Your task to perform on an android device: turn on bluetooth scan Image 0: 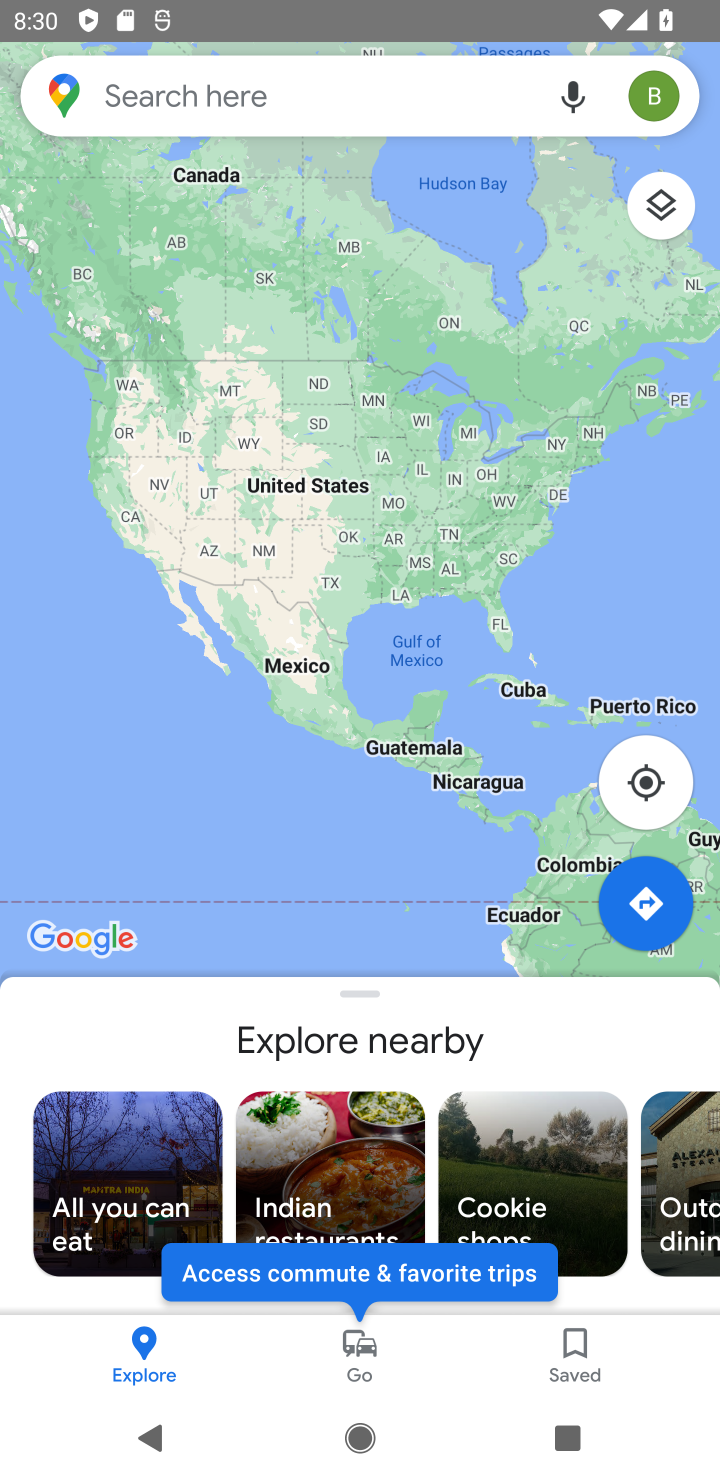
Step 0: press home button
Your task to perform on an android device: turn on bluetooth scan Image 1: 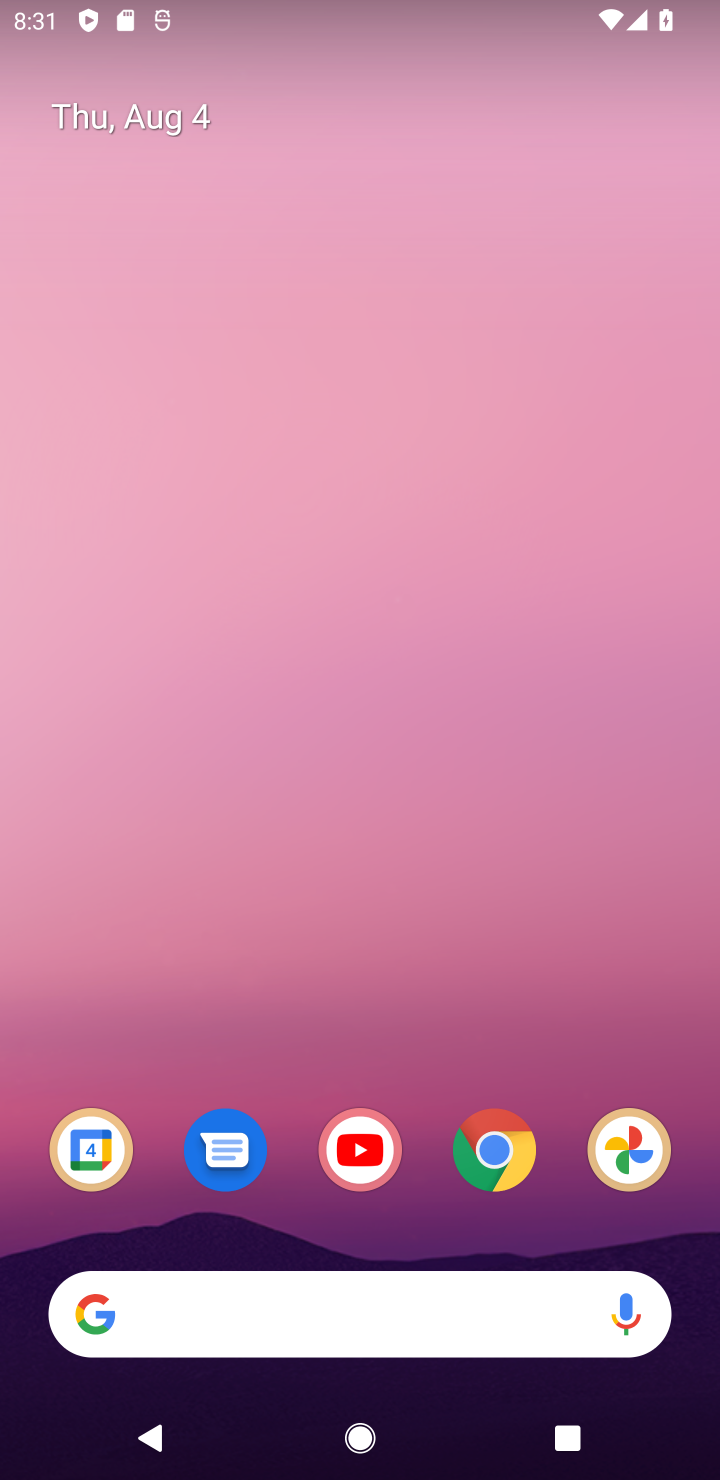
Step 1: drag from (365, 1060) to (246, 264)
Your task to perform on an android device: turn on bluetooth scan Image 2: 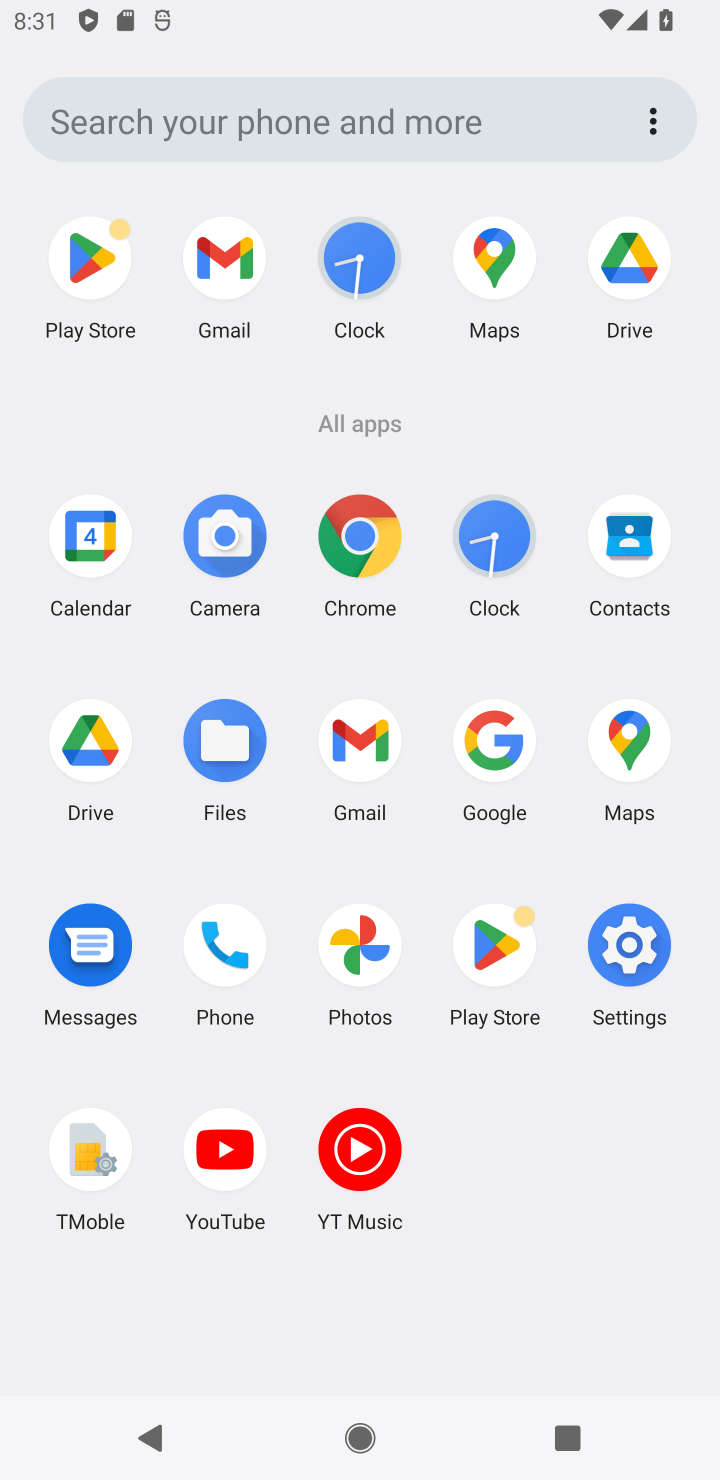
Step 2: click (656, 930)
Your task to perform on an android device: turn on bluetooth scan Image 3: 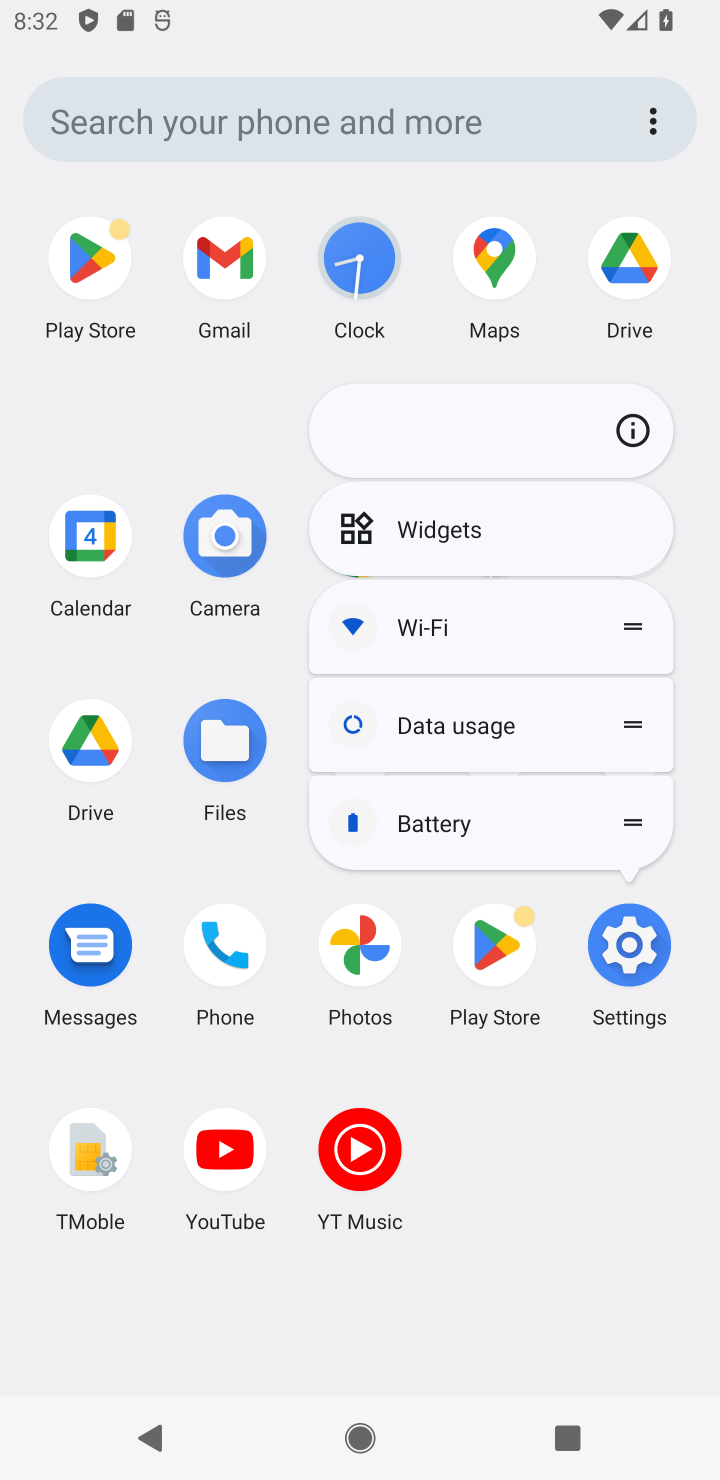
Step 3: click (631, 914)
Your task to perform on an android device: turn on bluetooth scan Image 4: 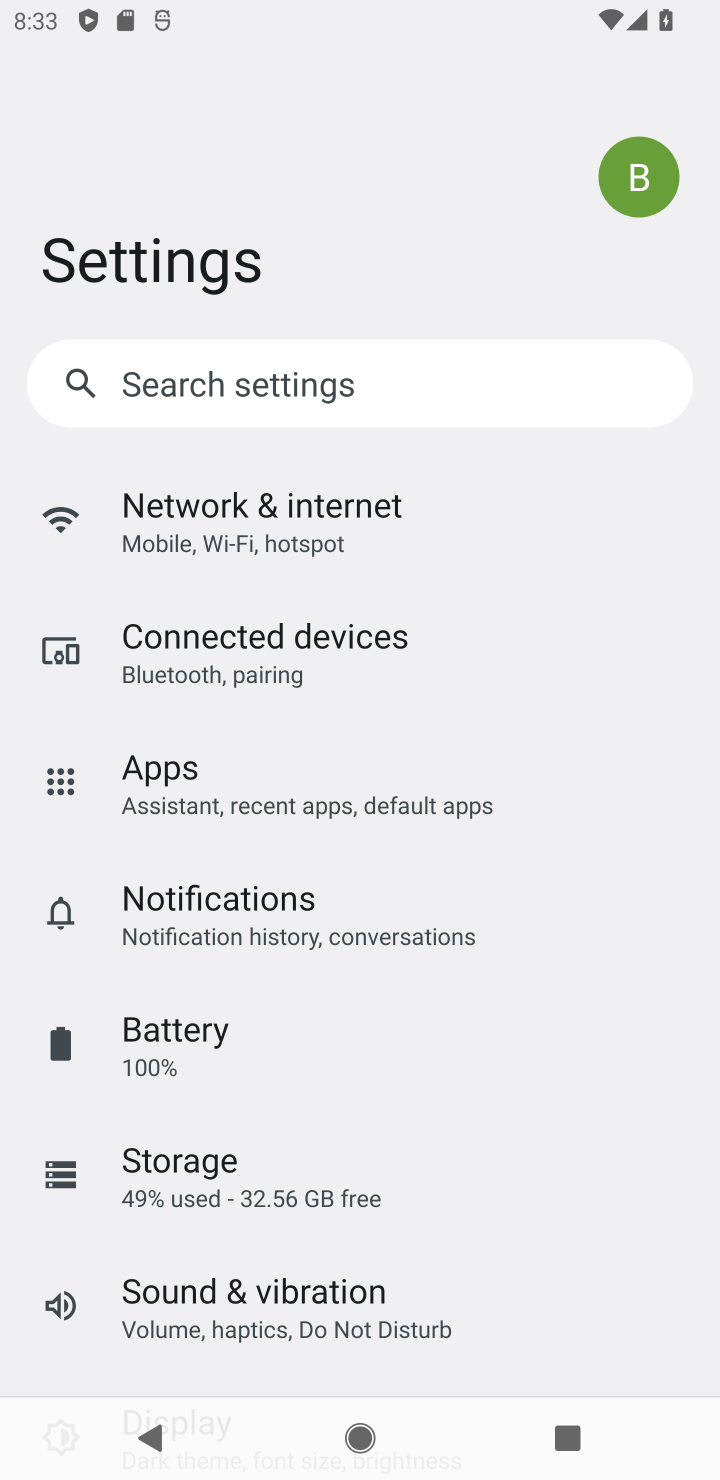
Step 4: drag from (318, 1231) to (288, 280)
Your task to perform on an android device: turn on bluetooth scan Image 5: 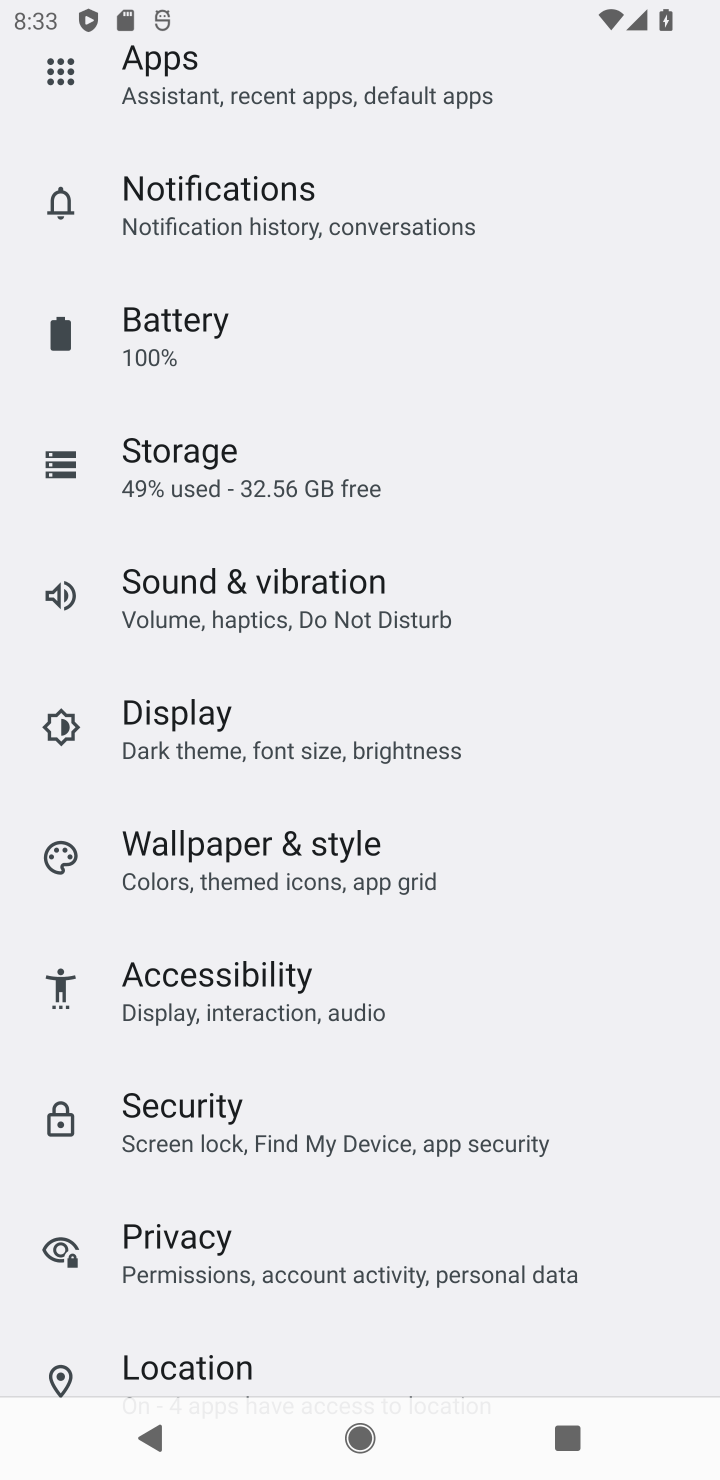
Step 5: click (231, 1343)
Your task to perform on an android device: turn on bluetooth scan Image 6: 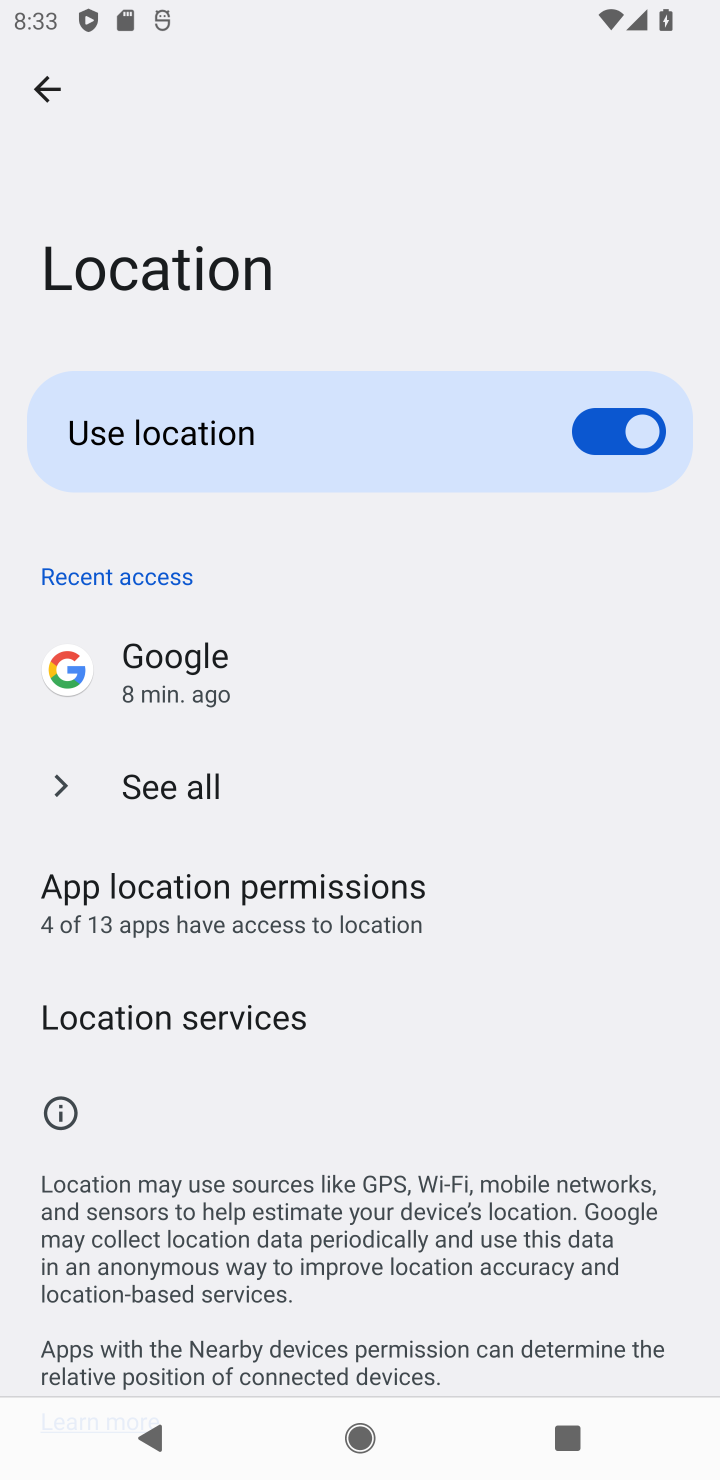
Step 6: click (168, 1026)
Your task to perform on an android device: turn on bluetooth scan Image 7: 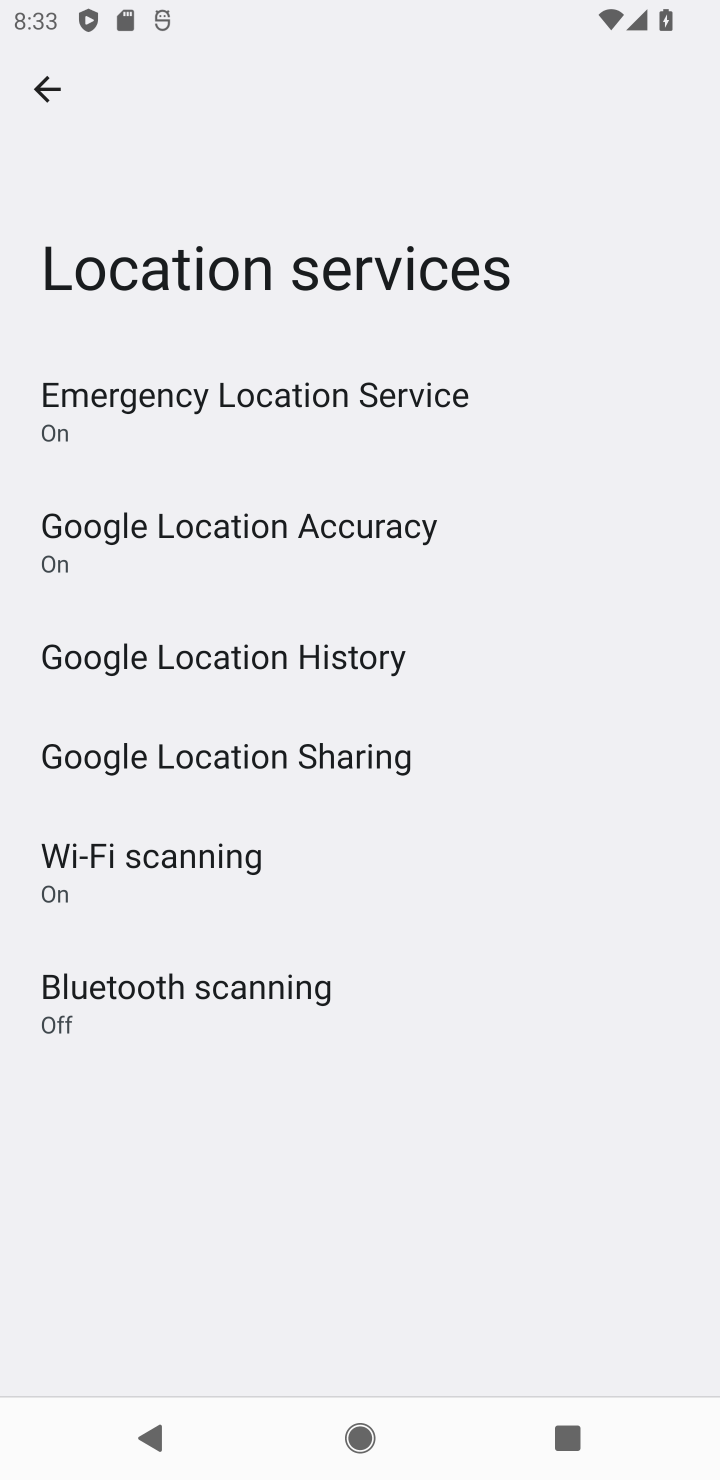
Step 7: click (180, 1031)
Your task to perform on an android device: turn on bluetooth scan Image 8: 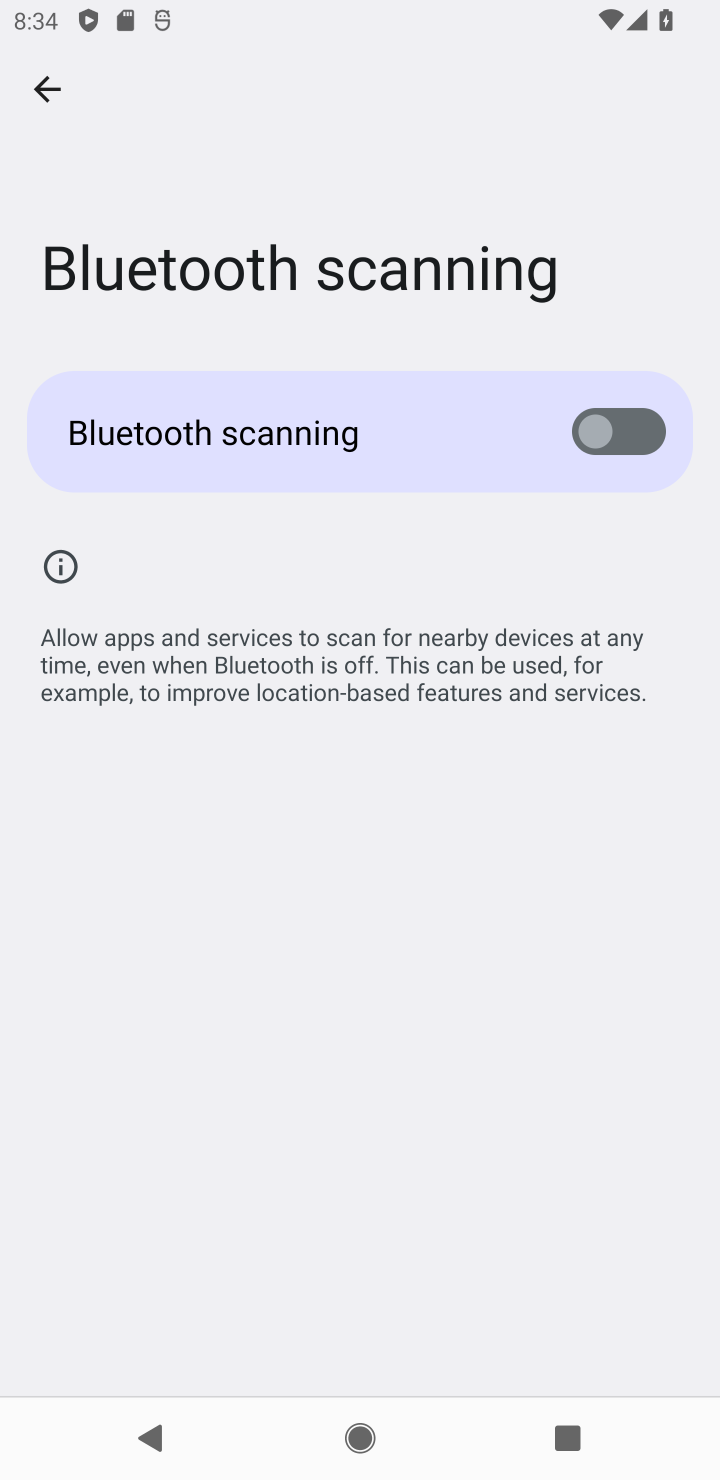
Step 8: click (628, 417)
Your task to perform on an android device: turn on bluetooth scan Image 9: 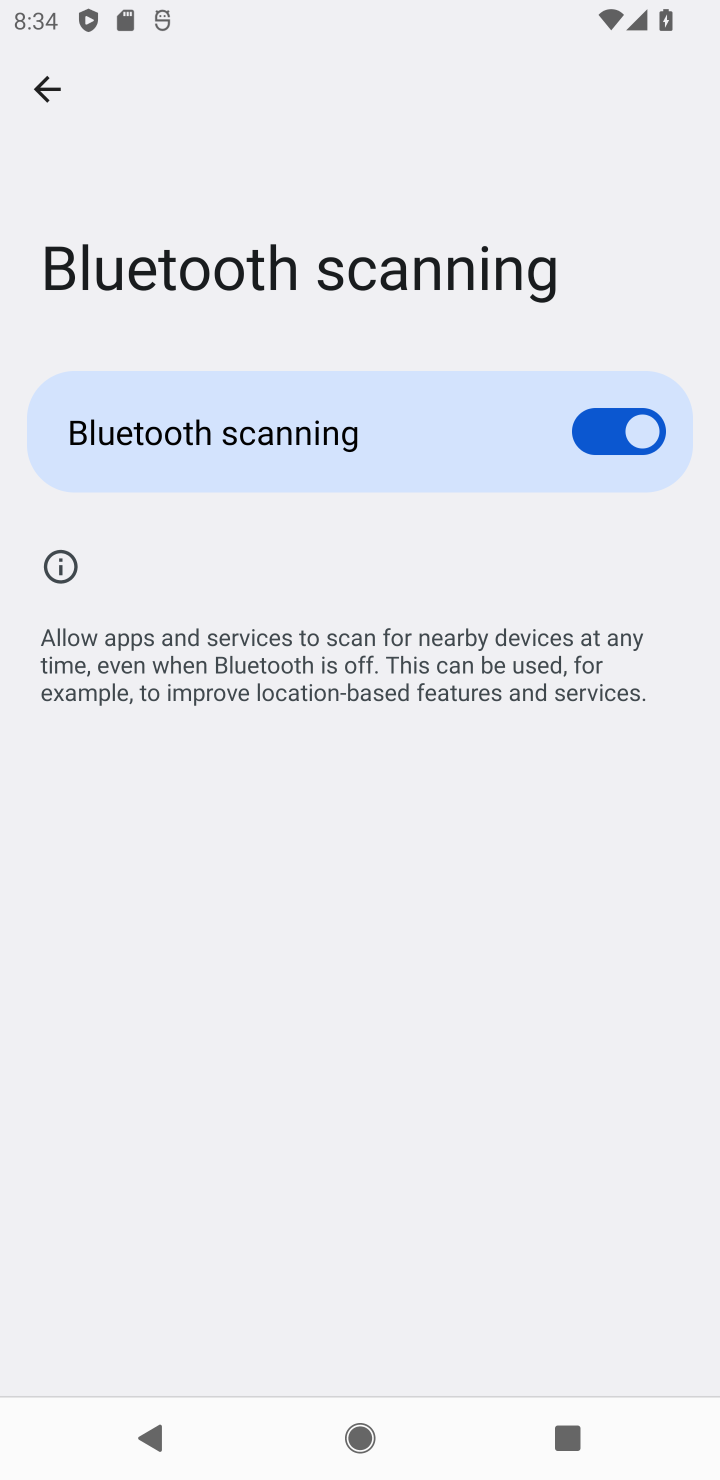
Step 9: task complete